Your task to perform on an android device: Go to Google maps Image 0: 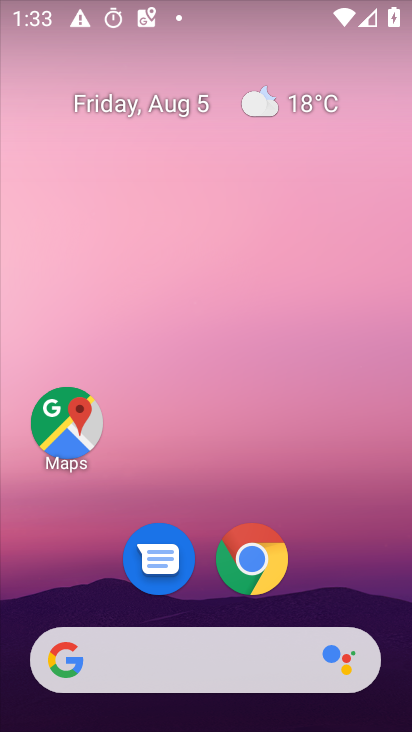
Step 0: click (66, 431)
Your task to perform on an android device: Go to Google maps Image 1: 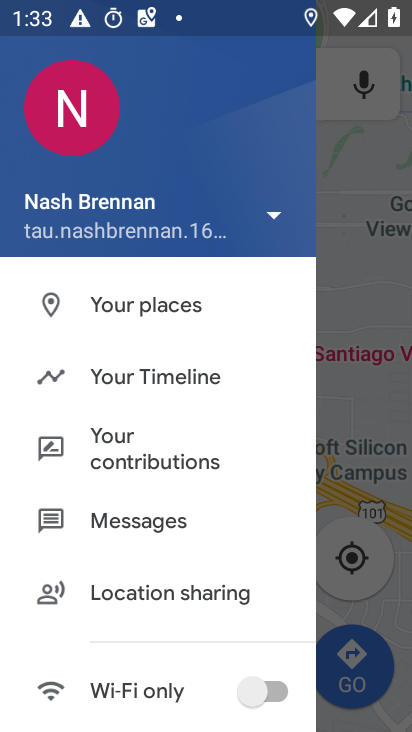
Step 1: click (335, 499)
Your task to perform on an android device: Go to Google maps Image 2: 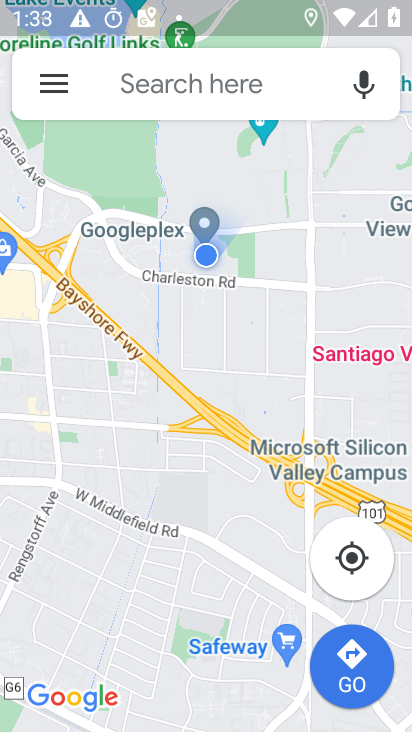
Step 2: task complete